Your task to perform on an android device: toggle location history Image 0: 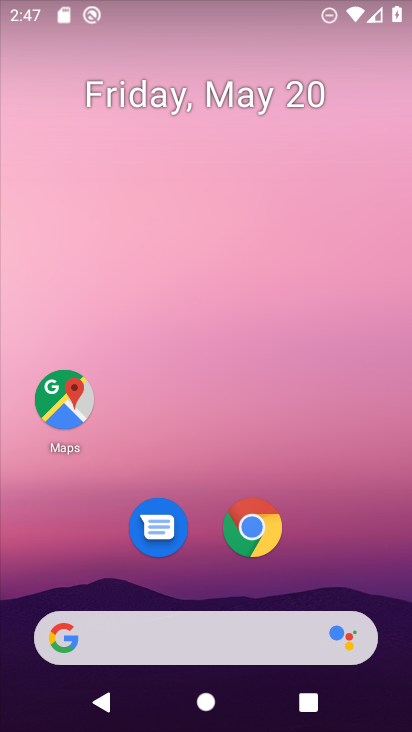
Step 0: drag from (208, 326) to (251, 150)
Your task to perform on an android device: toggle location history Image 1: 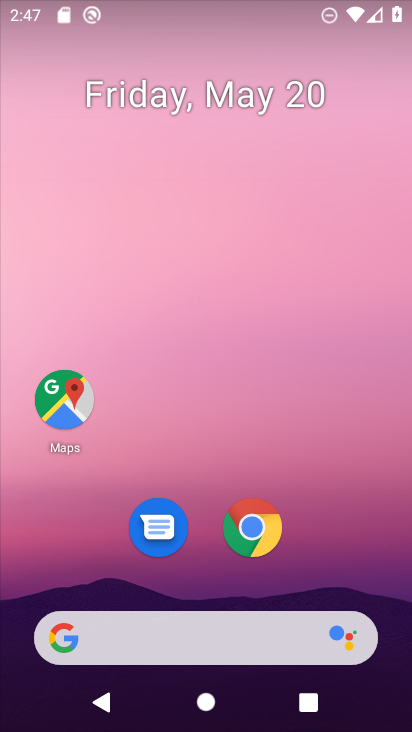
Step 1: drag from (204, 585) to (260, 122)
Your task to perform on an android device: toggle location history Image 2: 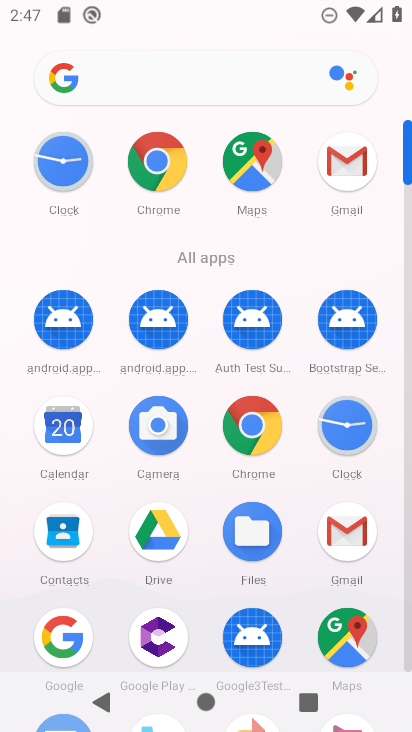
Step 2: drag from (163, 625) to (254, 92)
Your task to perform on an android device: toggle location history Image 3: 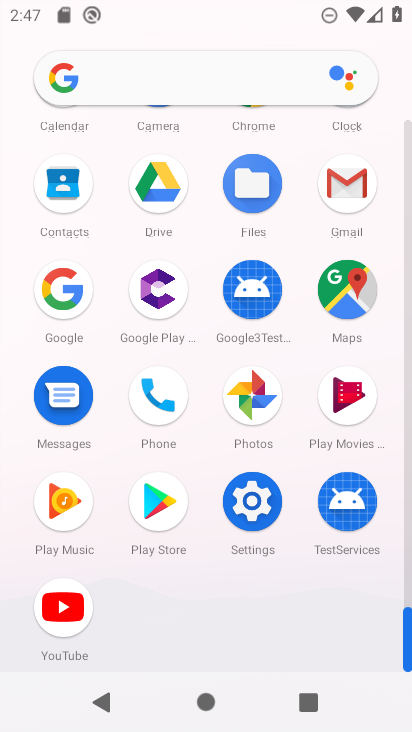
Step 3: click (258, 512)
Your task to perform on an android device: toggle location history Image 4: 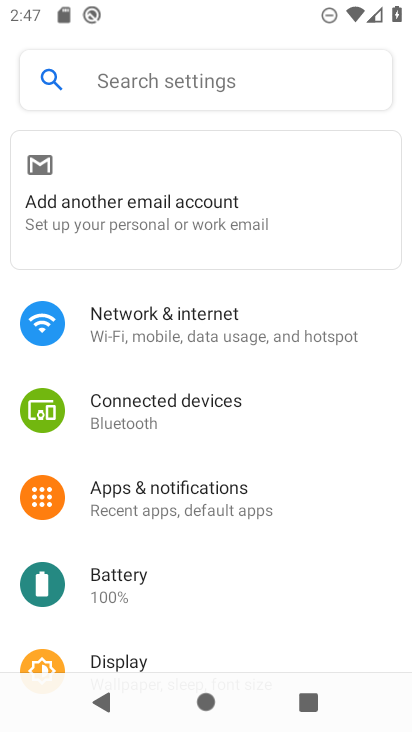
Step 4: drag from (172, 610) to (230, 127)
Your task to perform on an android device: toggle location history Image 5: 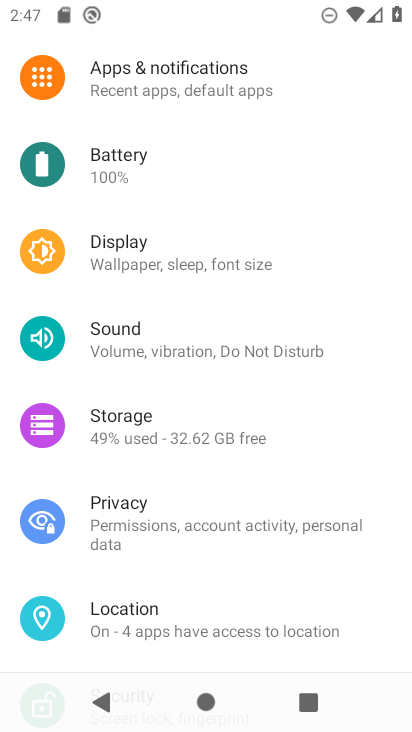
Step 5: click (125, 618)
Your task to perform on an android device: toggle location history Image 6: 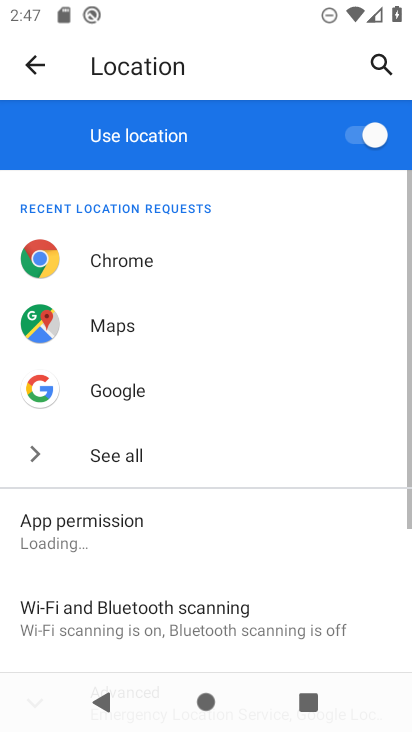
Step 6: drag from (122, 564) to (186, 130)
Your task to perform on an android device: toggle location history Image 7: 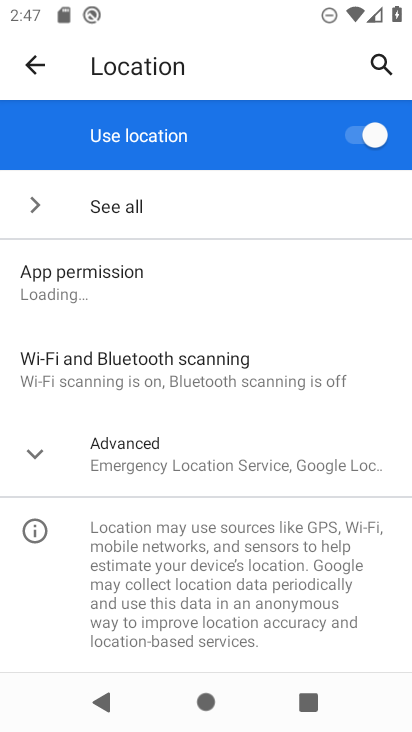
Step 7: click (184, 461)
Your task to perform on an android device: toggle location history Image 8: 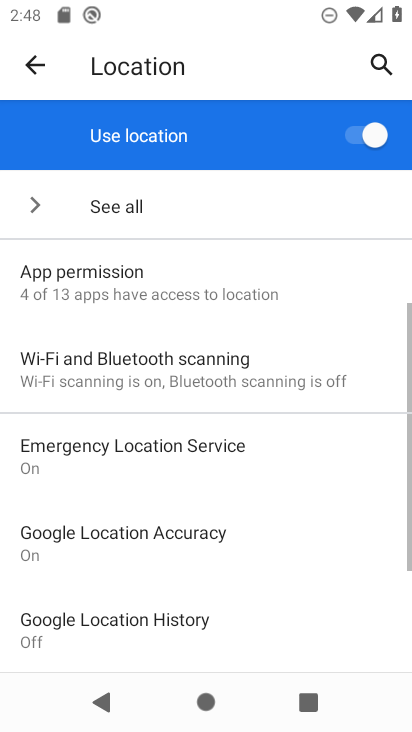
Step 8: click (143, 614)
Your task to perform on an android device: toggle location history Image 9: 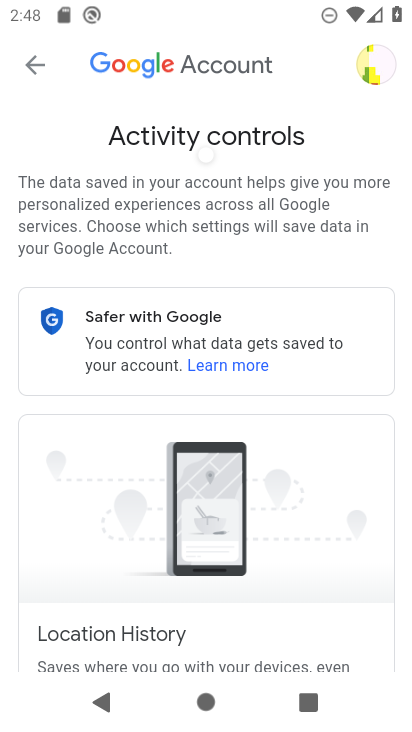
Step 9: drag from (192, 601) to (159, 134)
Your task to perform on an android device: toggle location history Image 10: 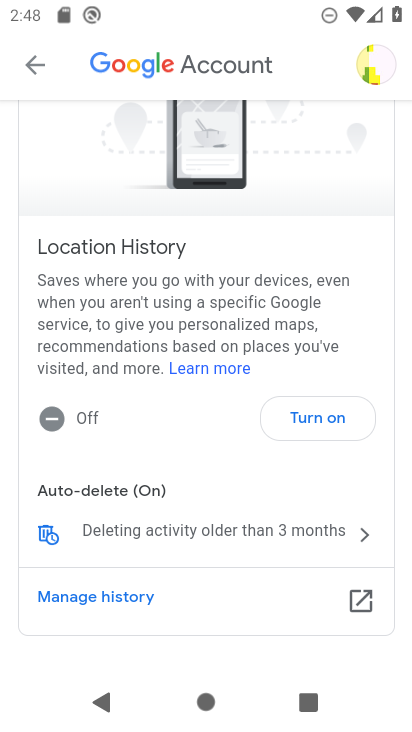
Step 10: click (298, 426)
Your task to perform on an android device: toggle location history Image 11: 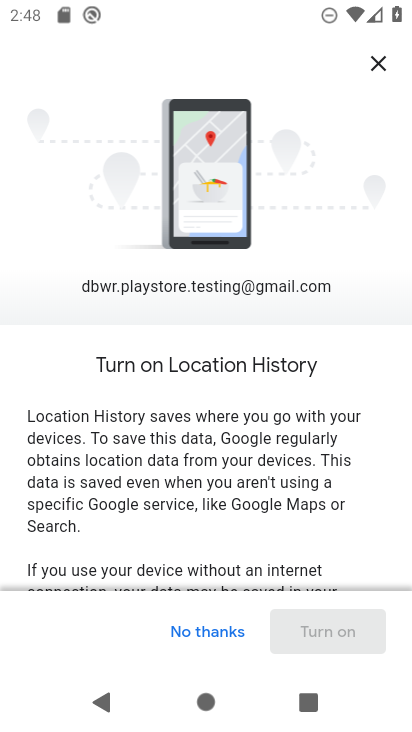
Step 11: drag from (193, 535) to (210, 31)
Your task to perform on an android device: toggle location history Image 12: 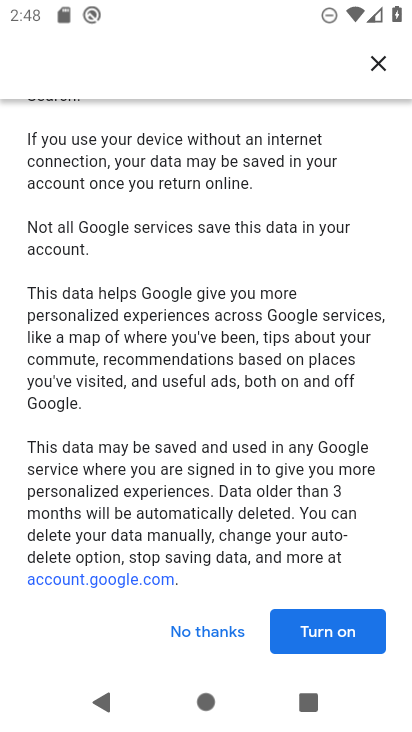
Step 12: click (322, 629)
Your task to perform on an android device: toggle location history Image 13: 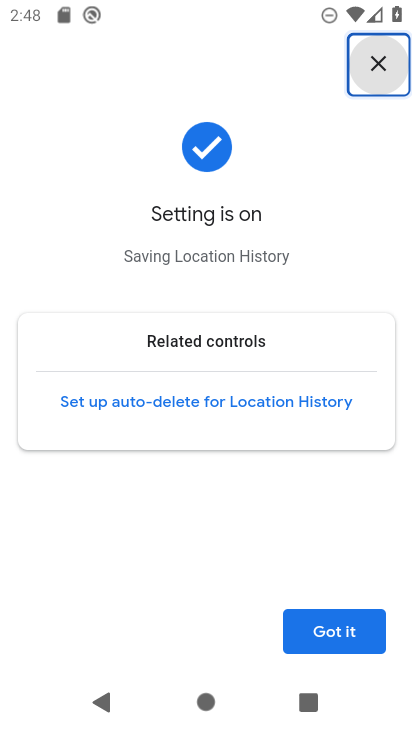
Step 13: click (352, 640)
Your task to perform on an android device: toggle location history Image 14: 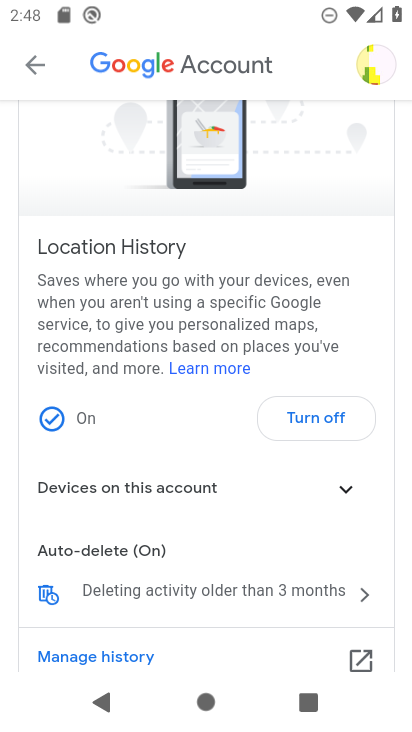
Step 14: task complete